Your task to perform on an android device: toggle sleep mode Image 0: 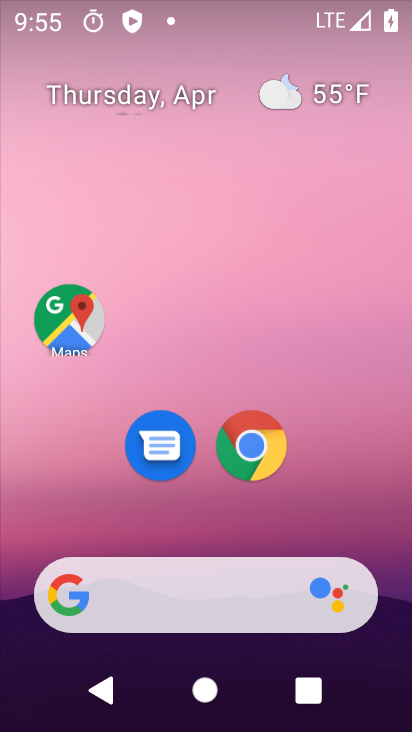
Step 0: drag from (377, 559) to (387, 13)
Your task to perform on an android device: toggle sleep mode Image 1: 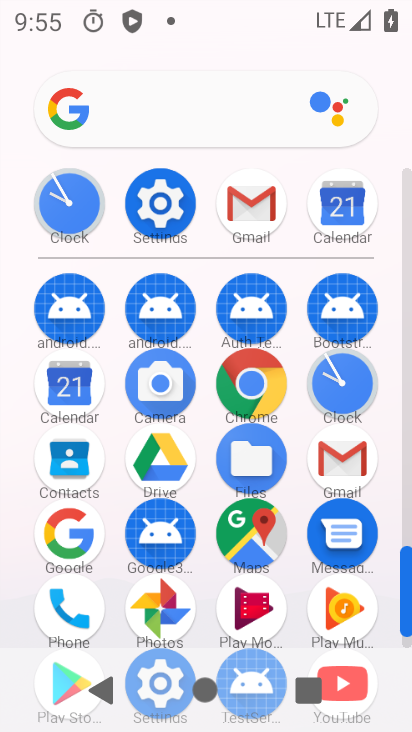
Step 1: click (159, 206)
Your task to perform on an android device: toggle sleep mode Image 2: 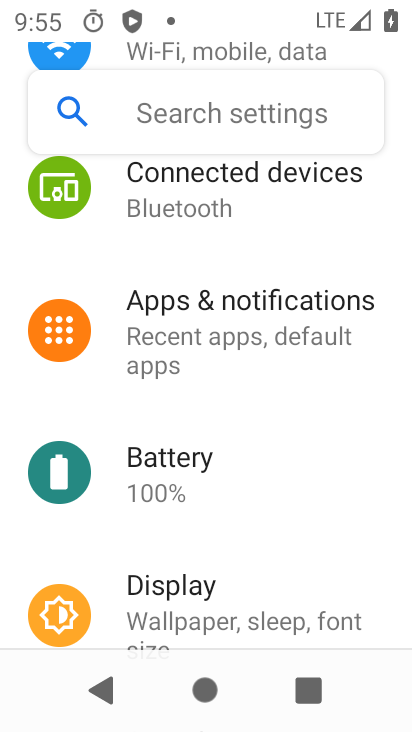
Step 2: click (167, 620)
Your task to perform on an android device: toggle sleep mode Image 3: 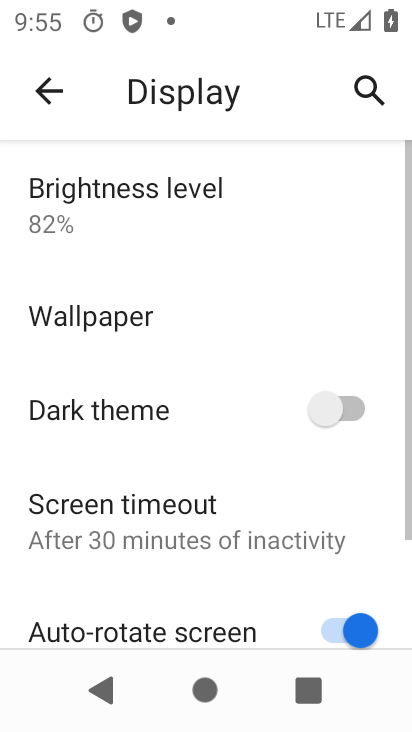
Step 3: drag from (172, 579) to (176, 169)
Your task to perform on an android device: toggle sleep mode Image 4: 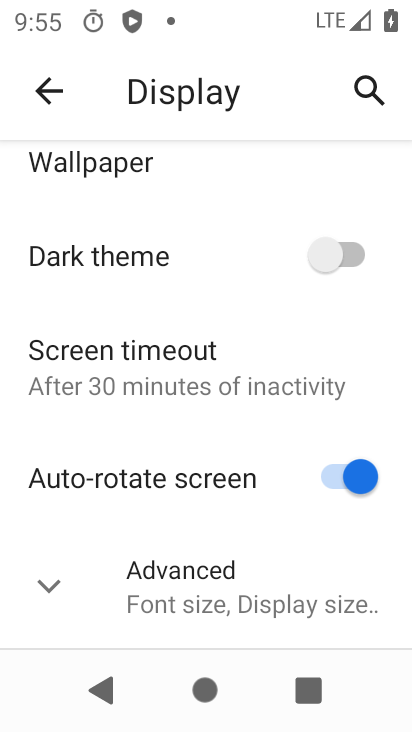
Step 4: click (53, 599)
Your task to perform on an android device: toggle sleep mode Image 5: 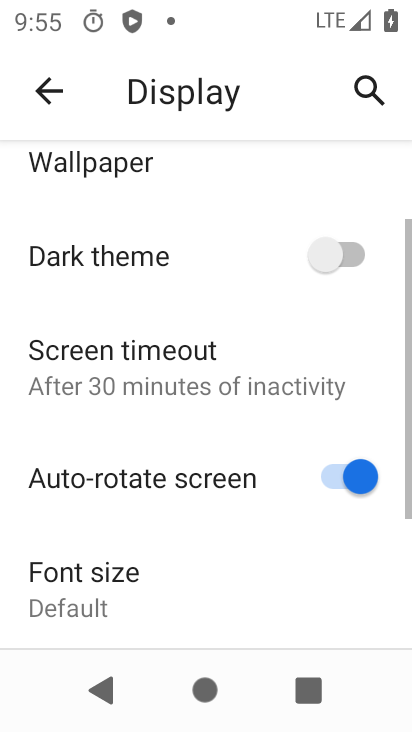
Step 5: task complete